Your task to perform on an android device: toggle data saver in the chrome app Image 0: 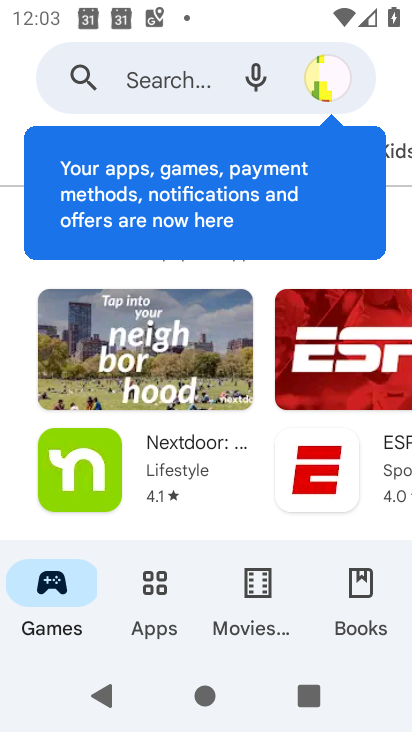
Step 0: press home button
Your task to perform on an android device: toggle data saver in the chrome app Image 1: 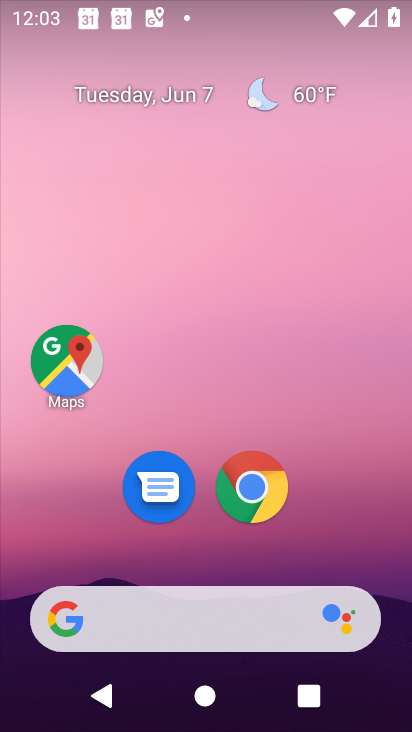
Step 1: click (267, 483)
Your task to perform on an android device: toggle data saver in the chrome app Image 2: 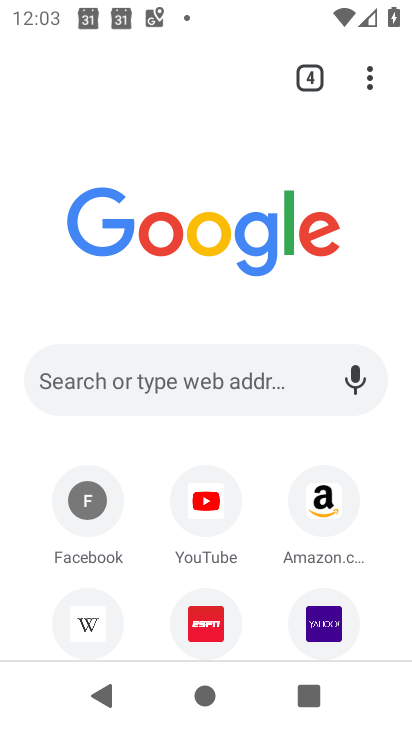
Step 2: click (371, 74)
Your task to perform on an android device: toggle data saver in the chrome app Image 3: 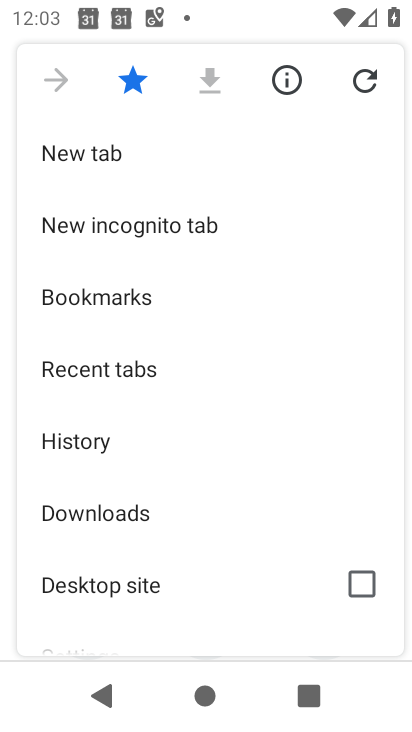
Step 3: drag from (209, 577) to (124, 190)
Your task to perform on an android device: toggle data saver in the chrome app Image 4: 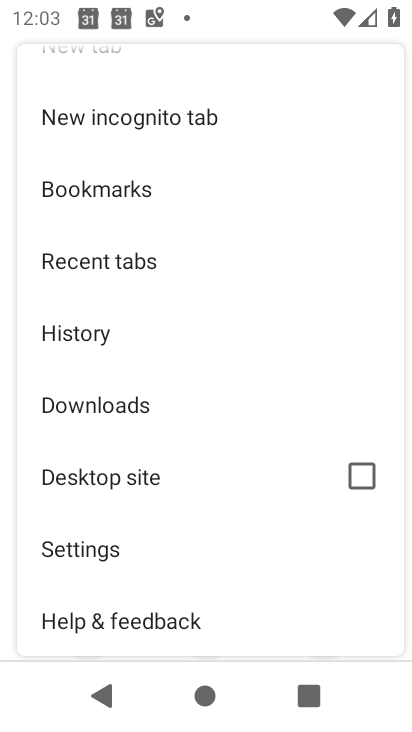
Step 4: click (159, 564)
Your task to perform on an android device: toggle data saver in the chrome app Image 5: 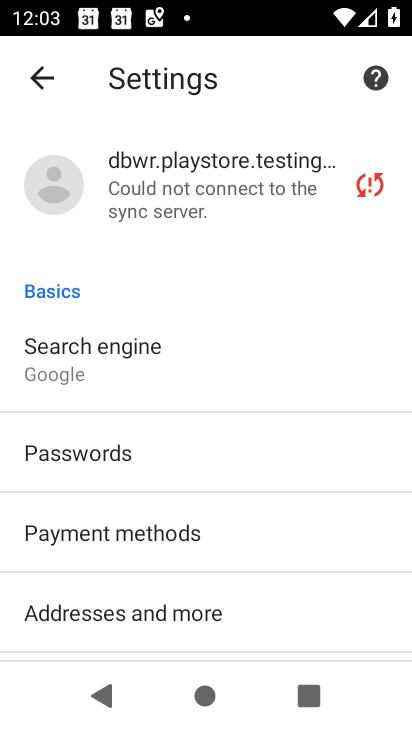
Step 5: drag from (203, 586) to (168, 280)
Your task to perform on an android device: toggle data saver in the chrome app Image 6: 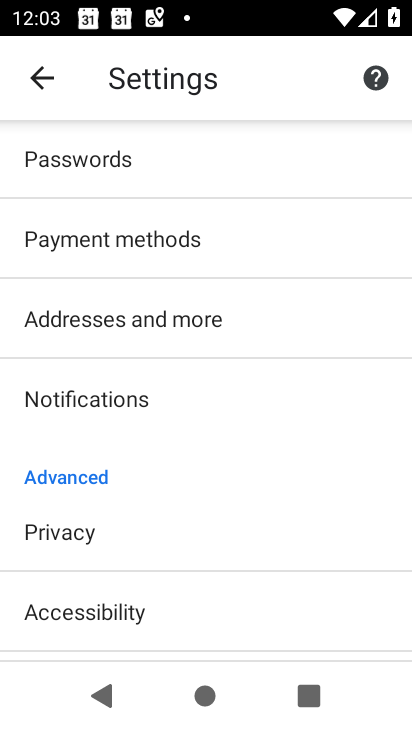
Step 6: drag from (238, 558) to (179, 173)
Your task to perform on an android device: toggle data saver in the chrome app Image 7: 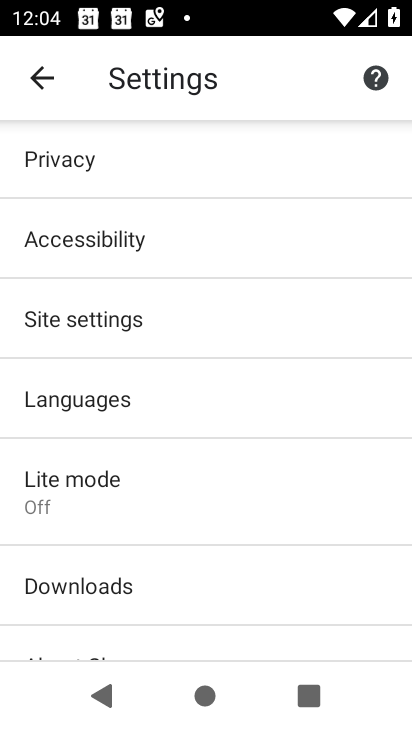
Step 7: click (219, 481)
Your task to perform on an android device: toggle data saver in the chrome app Image 8: 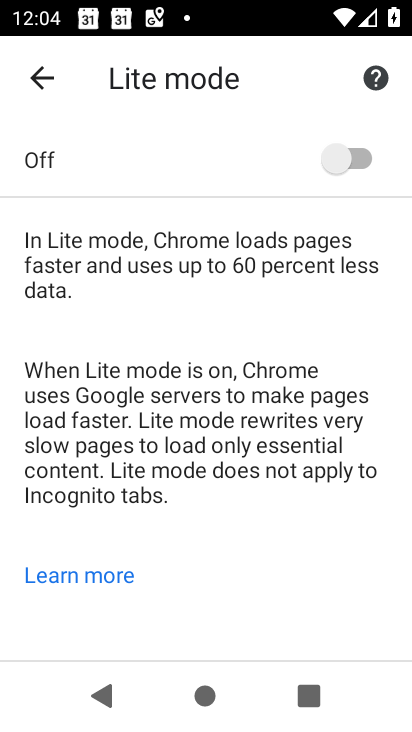
Step 8: click (353, 158)
Your task to perform on an android device: toggle data saver in the chrome app Image 9: 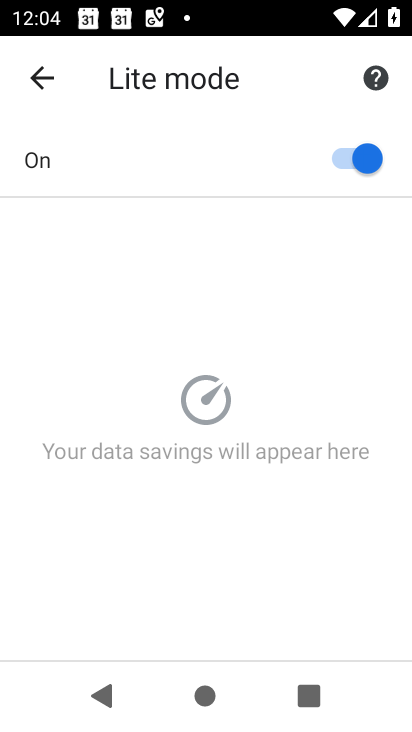
Step 9: task complete